Your task to perform on an android device: Open Chrome and go to settings Image 0: 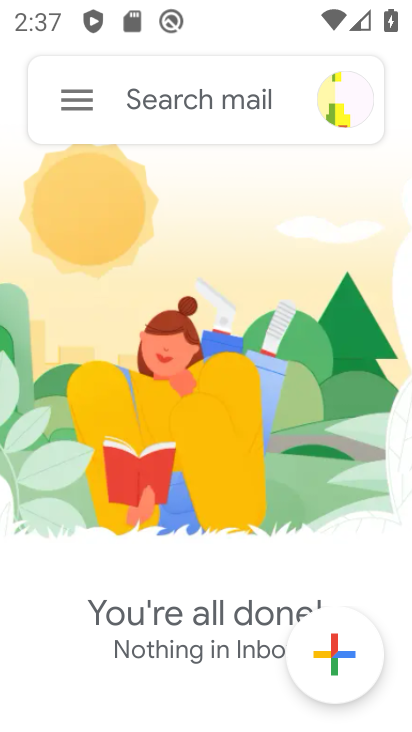
Step 0: press home button
Your task to perform on an android device: Open Chrome and go to settings Image 1: 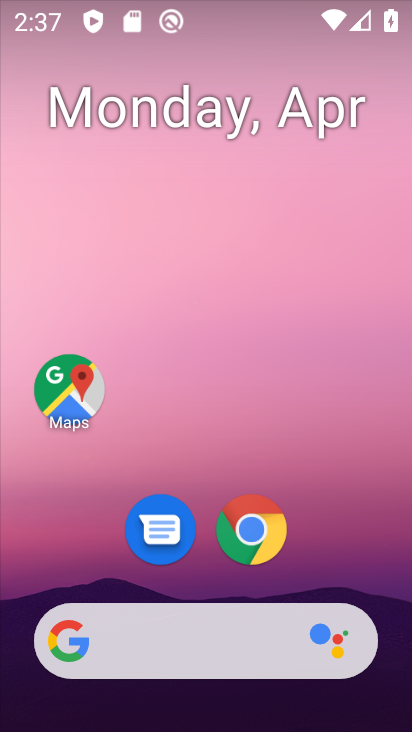
Step 1: drag from (298, 650) to (200, 268)
Your task to perform on an android device: Open Chrome and go to settings Image 2: 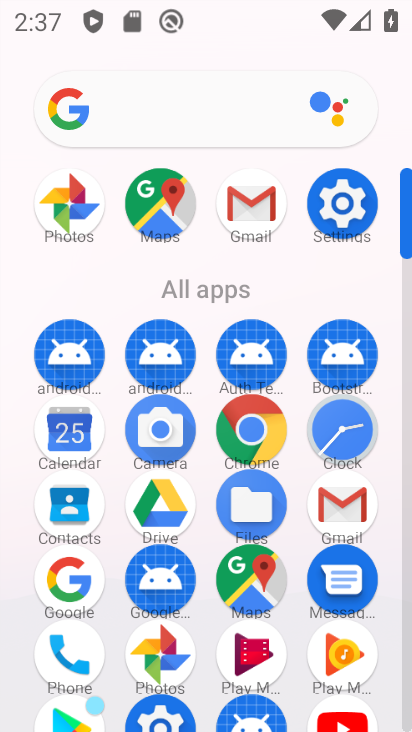
Step 2: click (257, 423)
Your task to perform on an android device: Open Chrome and go to settings Image 3: 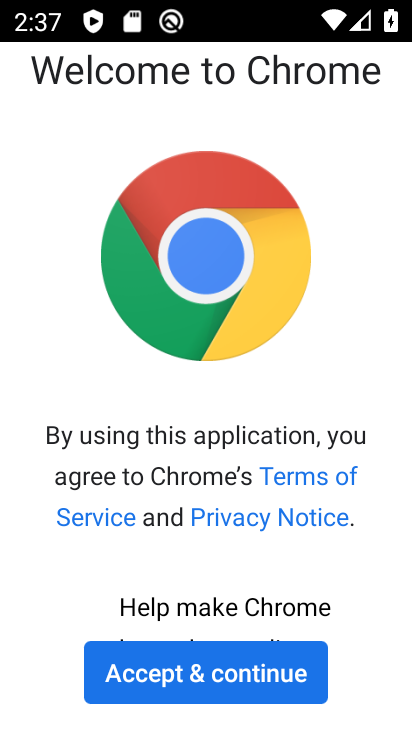
Step 3: click (206, 677)
Your task to perform on an android device: Open Chrome and go to settings Image 4: 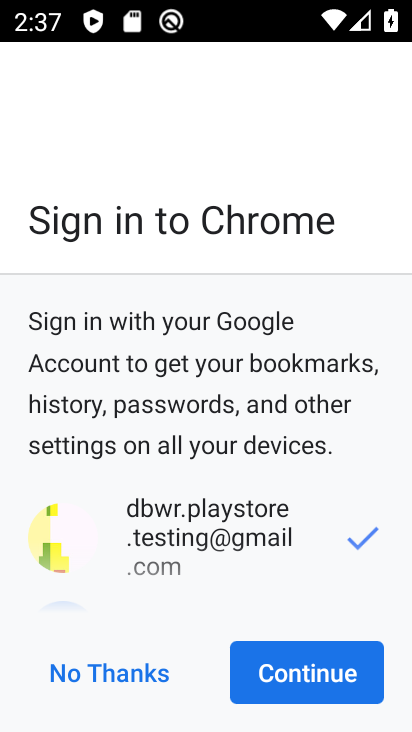
Step 4: click (331, 660)
Your task to perform on an android device: Open Chrome and go to settings Image 5: 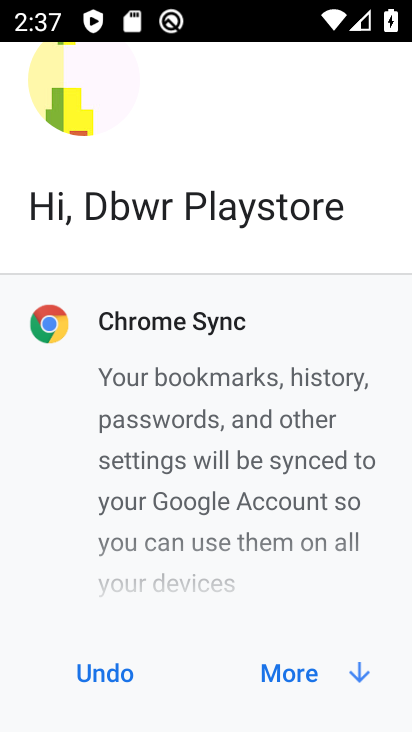
Step 5: click (338, 682)
Your task to perform on an android device: Open Chrome and go to settings Image 6: 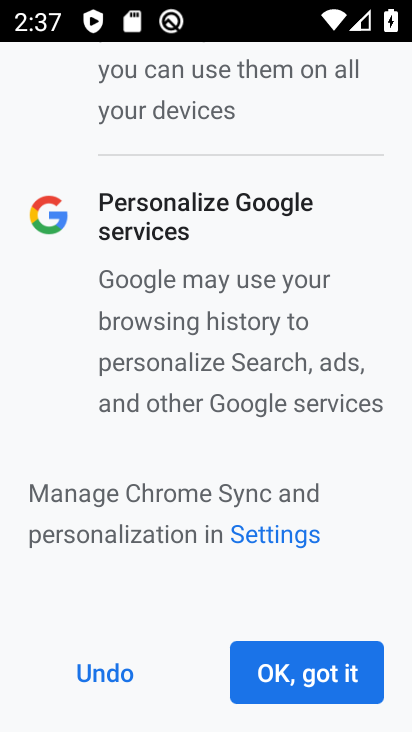
Step 6: click (328, 677)
Your task to perform on an android device: Open Chrome and go to settings Image 7: 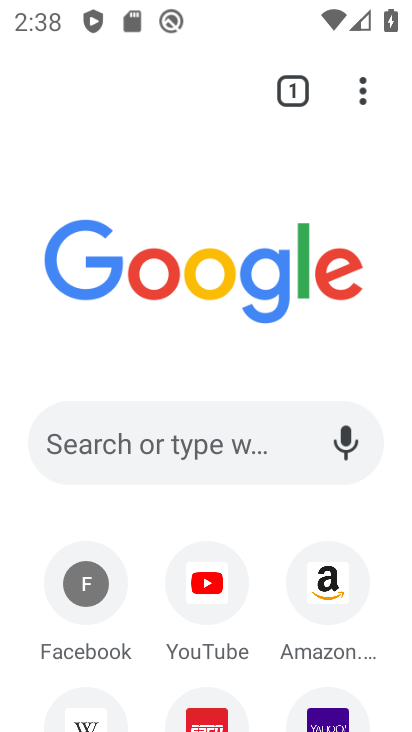
Step 7: click (372, 94)
Your task to perform on an android device: Open Chrome and go to settings Image 8: 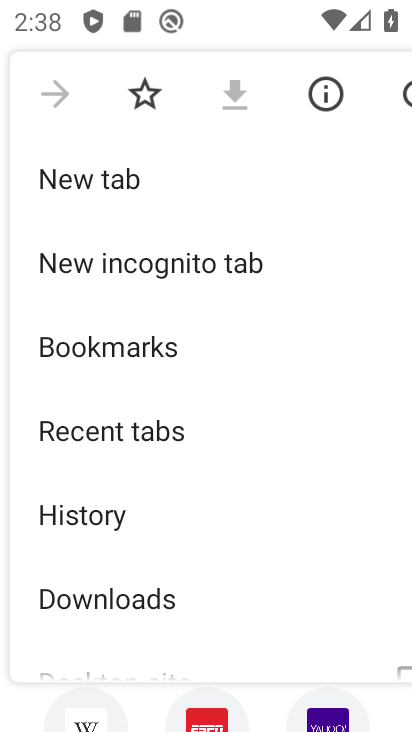
Step 8: click (102, 663)
Your task to perform on an android device: Open Chrome and go to settings Image 9: 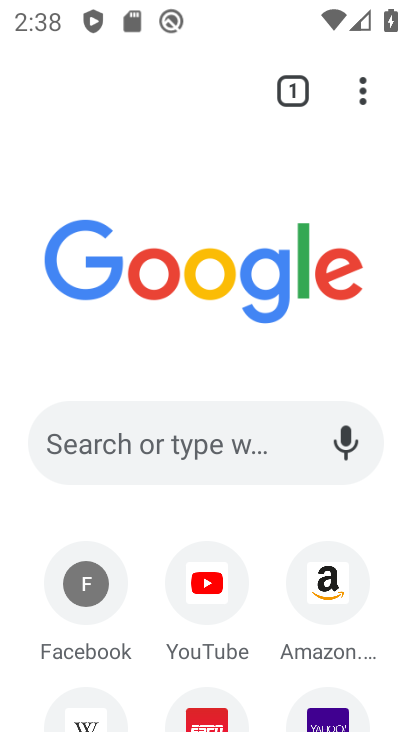
Step 9: click (368, 113)
Your task to perform on an android device: Open Chrome and go to settings Image 10: 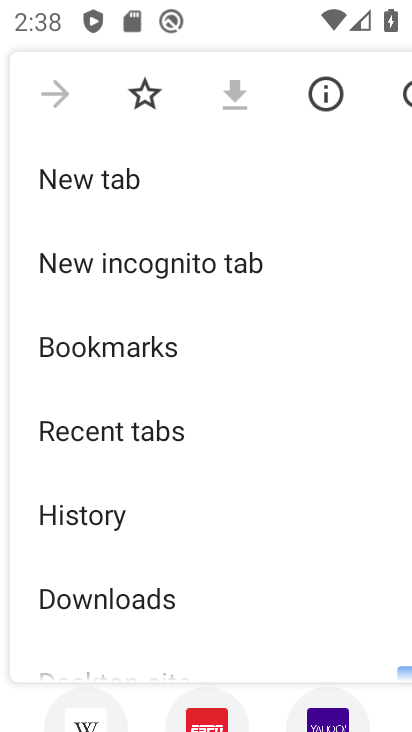
Step 10: drag from (205, 615) to (249, 486)
Your task to perform on an android device: Open Chrome and go to settings Image 11: 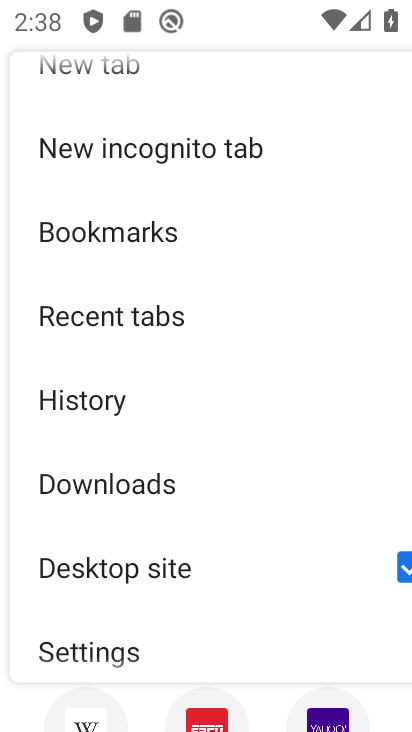
Step 11: click (151, 644)
Your task to perform on an android device: Open Chrome and go to settings Image 12: 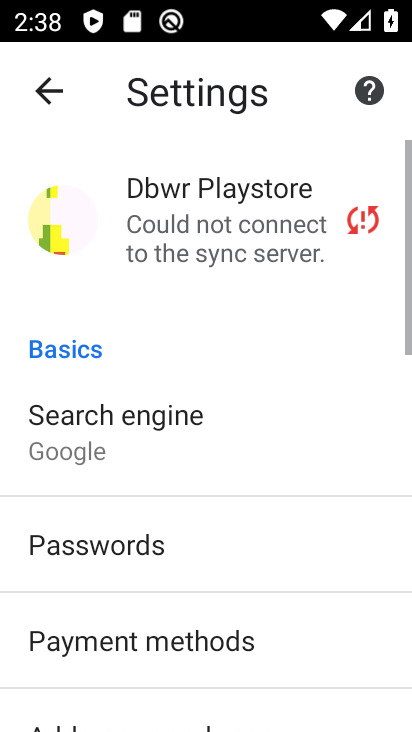
Step 12: task complete